Your task to perform on an android device: Open Maps and search for coffee Image 0: 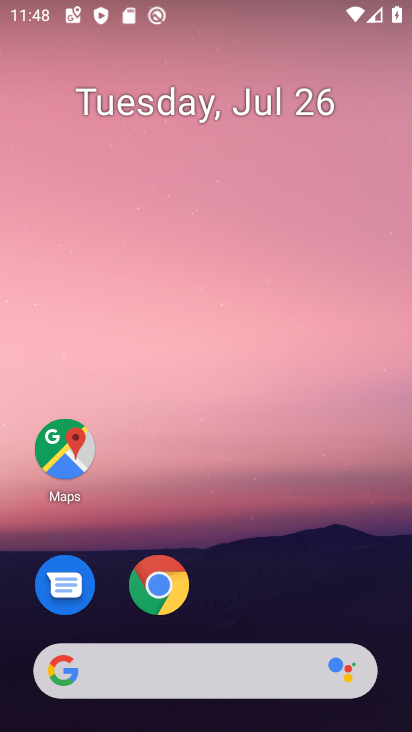
Step 0: drag from (289, 586) to (303, 107)
Your task to perform on an android device: Open Maps and search for coffee Image 1: 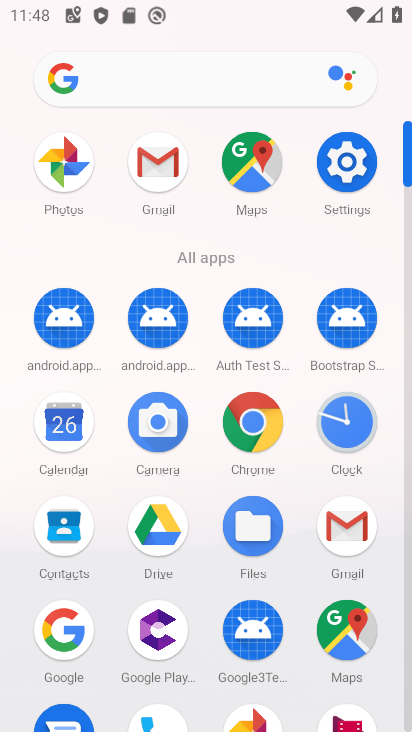
Step 1: click (235, 166)
Your task to perform on an android device: Open Maps and search for coffee Image 2: 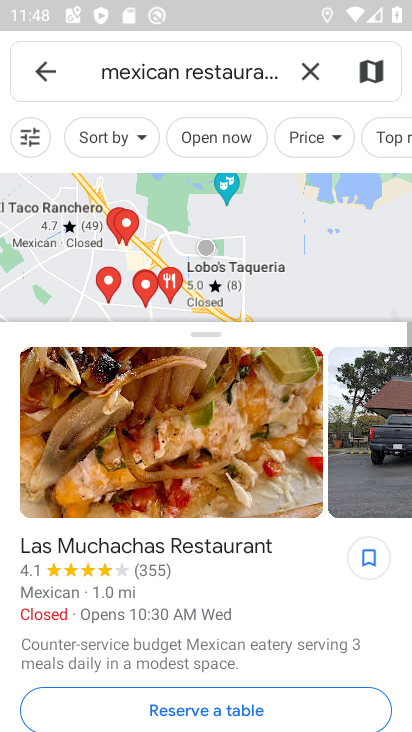
Step 2: click (309, 62)
Your task to perform on an android device: Open Maps and search for coffee Image 3: 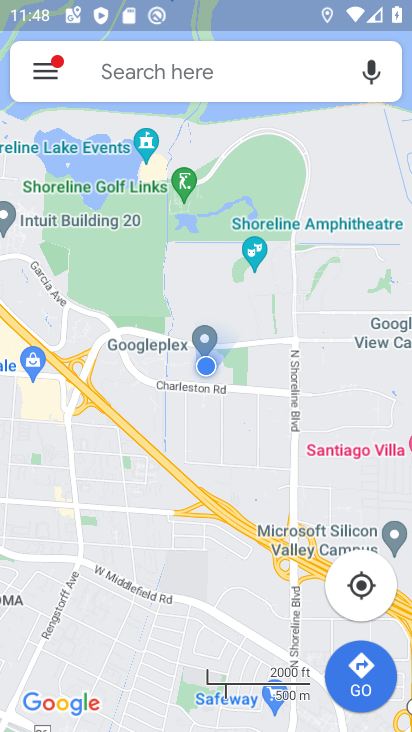
Step 3: click (277, 66)
Your task to perform on an android device: Open Maps and search for coffee Image 4: 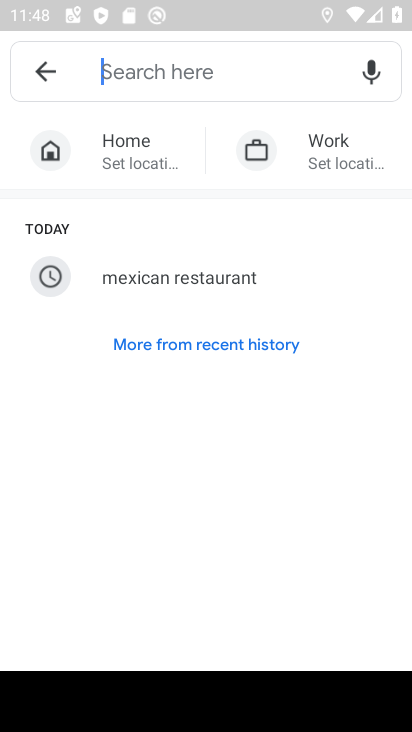
Step 4: type "Coffee"
Your task to perform on an android device: Open Maps and search for coffee Image 5: 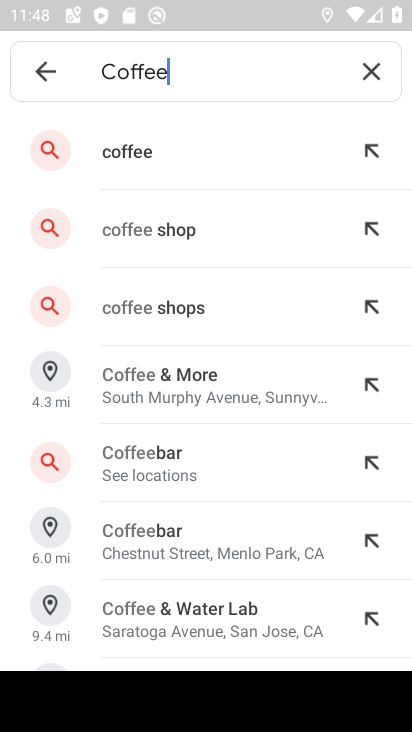
Step 5: click (134, 156)
Your task to perform on an android device: Open Maps and search for coffee Image 6: 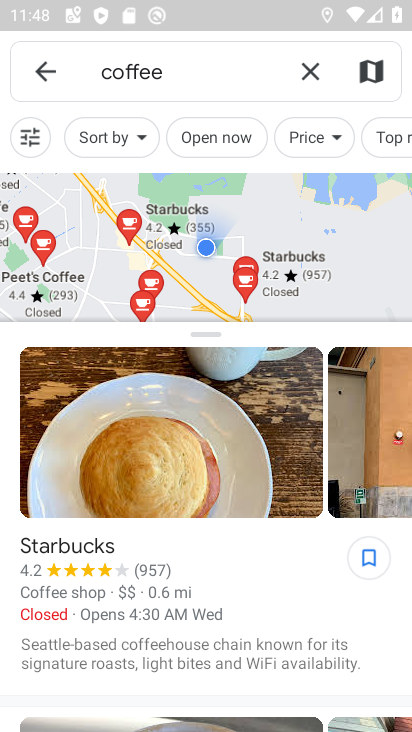
Step 6: task complete